Your task to perform on an android device: Go to calendar. Show me events next week Image 0: 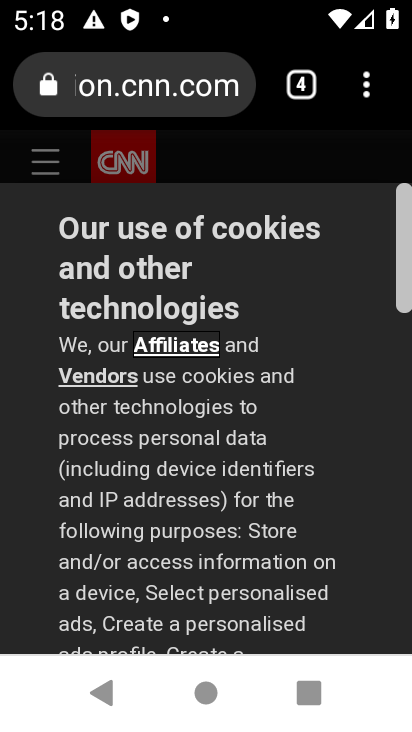
Step 0: task complete